Your task to perform on an android device: turn on improve location accuracy Image 0: 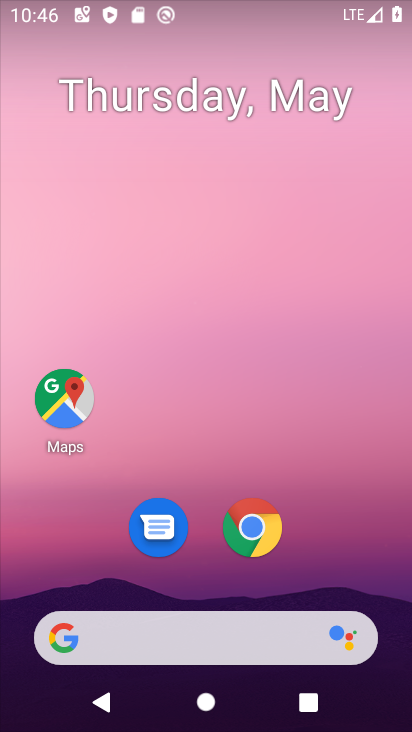
Step 0: drag from (330, 534) to (376, 91)
Your task to perform on an android device: turn on improve location accuracy Image 1: 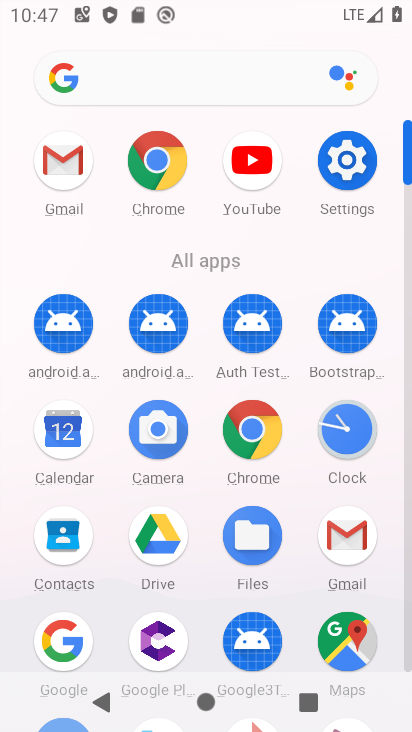
Step 1: click (358, 172)
Your task to perform on an android device: turn on improve location accuracy Image 2: 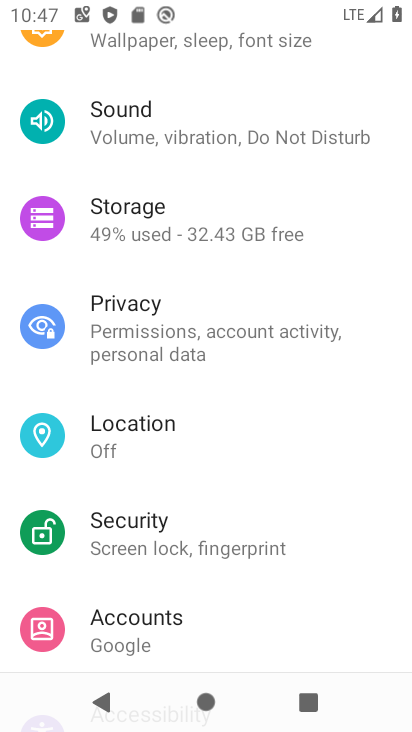
Step 2: click (168, 447)
Your task to perform on an android device: turn on improve location accuracy Image 3: 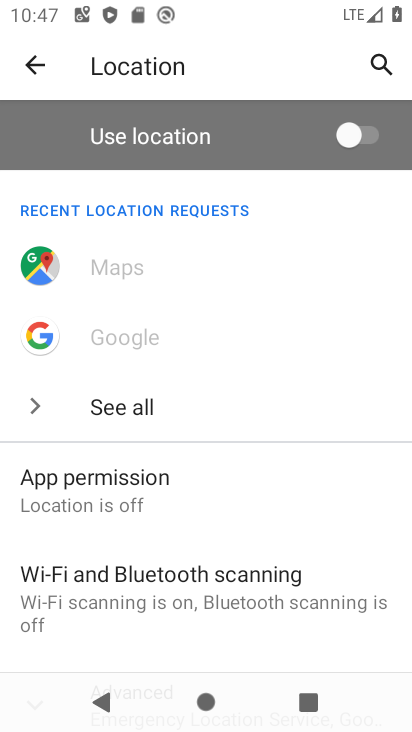
Step 3: click (230, 498)
Your task to perform on an android device: turn on improve location accuracy Image 4: 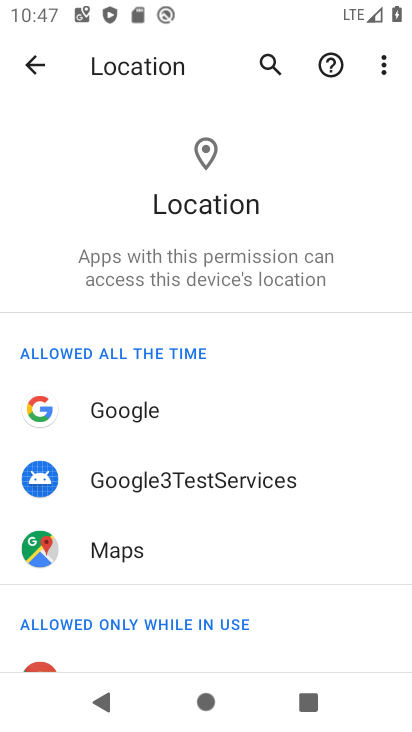
Step 4: drag from (238, 594) to (375, 129)
Your task to perform on an android device: turn on improve location accuracy Image 5: 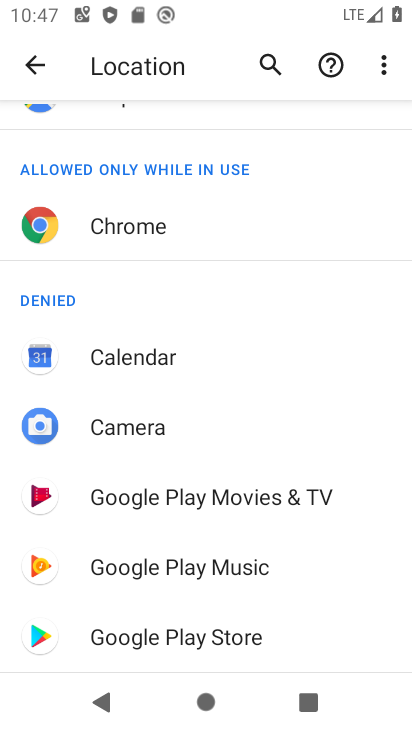
Step 5: click (35, 56)
Your task to perform on an android device: turn on improve location accuracy Image 6: 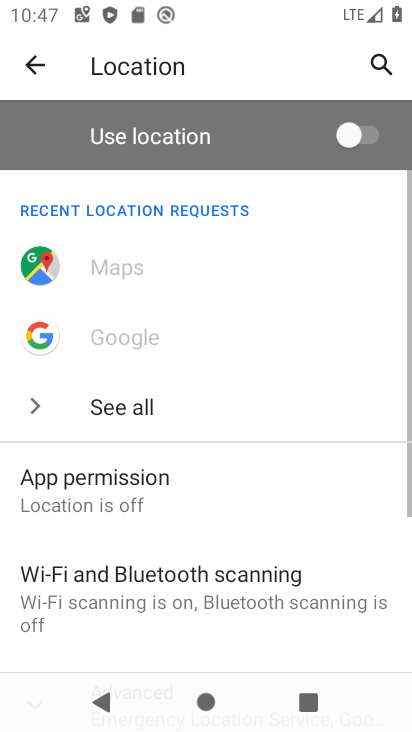
Step 6: drag from (213, 564) to (365, 200)
Your task to perform on an android device: turn on improve location accuracy Image 7: 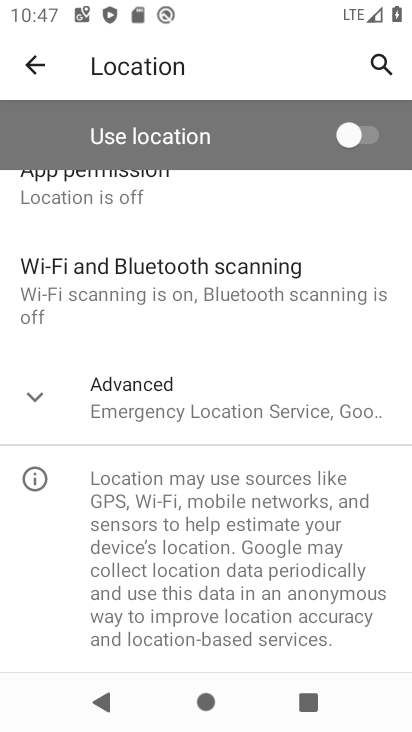
Step 7: click (180, 395)
Your task to perform on an android device: turn on improve location accuracy Image 8: 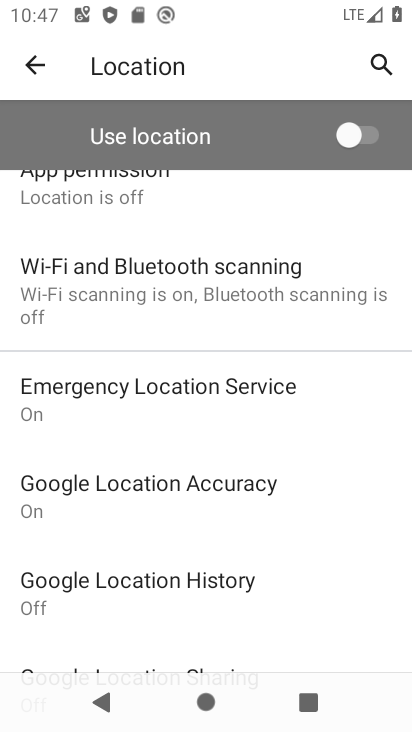
Step 8: click (205, 487)
Your task to perform on an android device: turn on improve location accuracy Image 9: 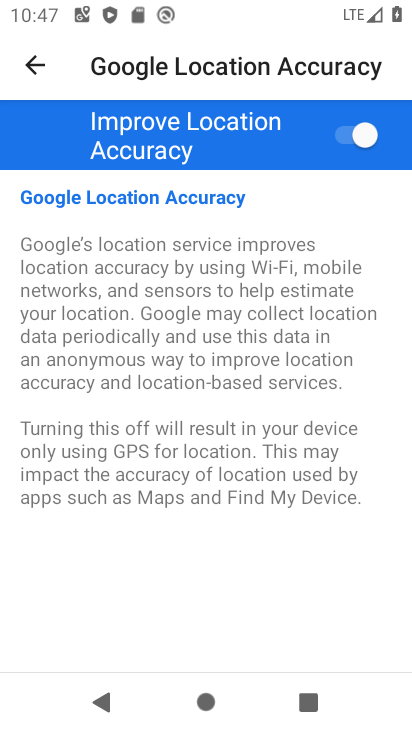
Step 9: task complete